Your task to perform on an android device: check android version Image 0: 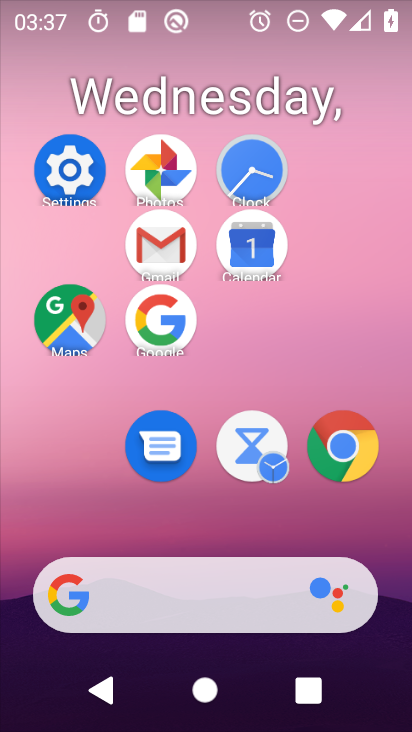
Step 0: click (80, 167)
Your task to perform on an android device: check android version Image 1: 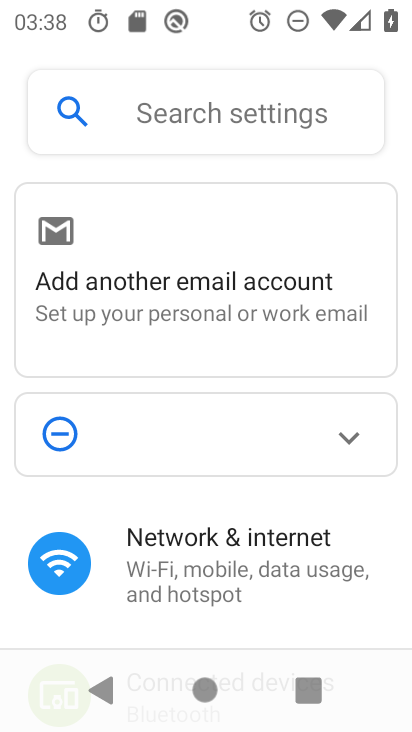
Step 1: press home button
Your task to perform on an android device: check android version Image 2: 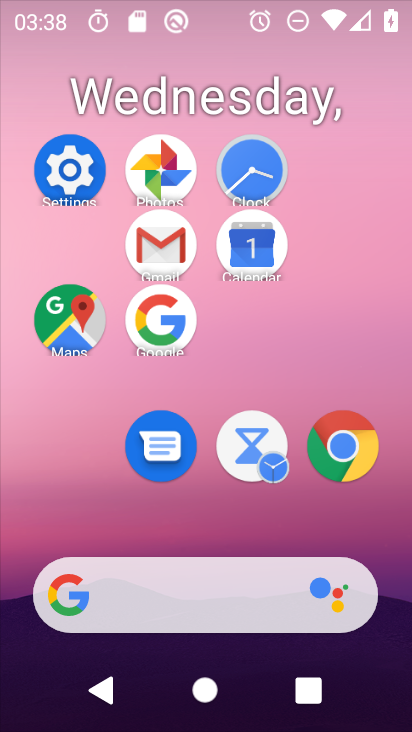
Step 2: click (71, 159)
Your task to perform on an android device: check android version Image 3: 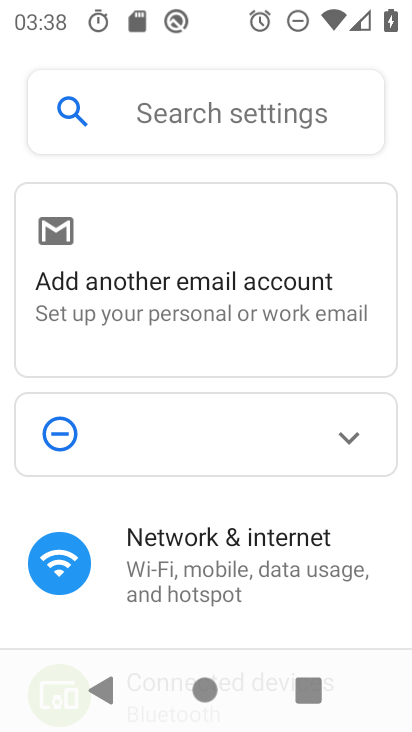
Step 3: drag from (263, 580) to (266, 162)
Your task to perform on an android device: check android version Image 4: 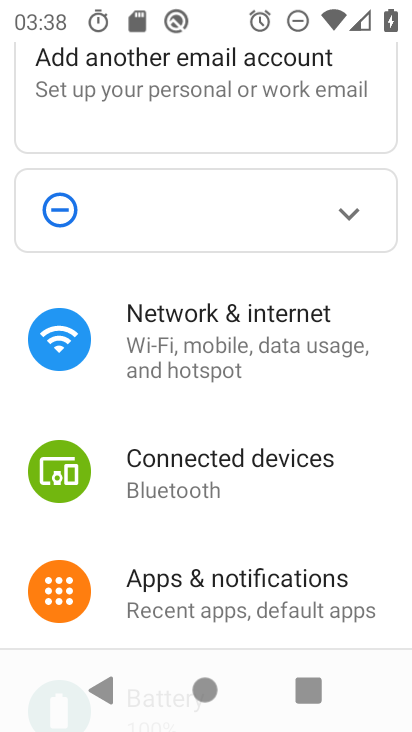
Step 4: drag from (315, 513) to (285, 156)
Your task to perform on an android device: check android version Image 5: 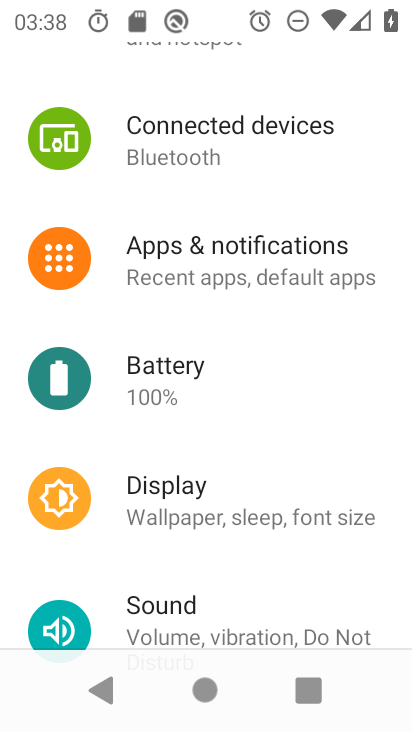
Step 5: drag from (323, 524) to (282, 102)
Your task to perform on an android device: check android version Image 6: 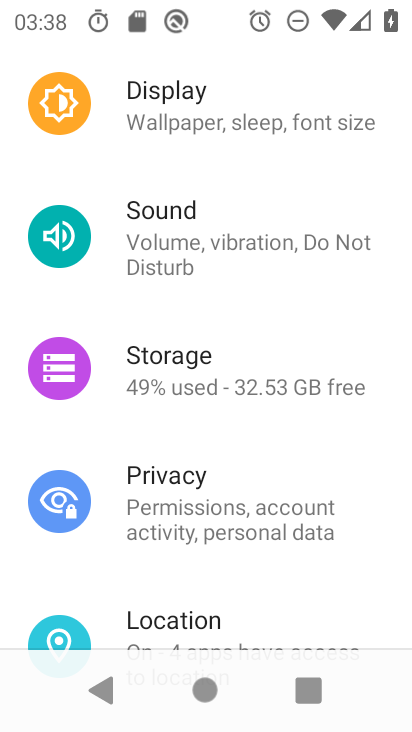
Step 6: drag from (301, 650) to (262, 183)
Your task to perform on an android device: check android version Image 7: 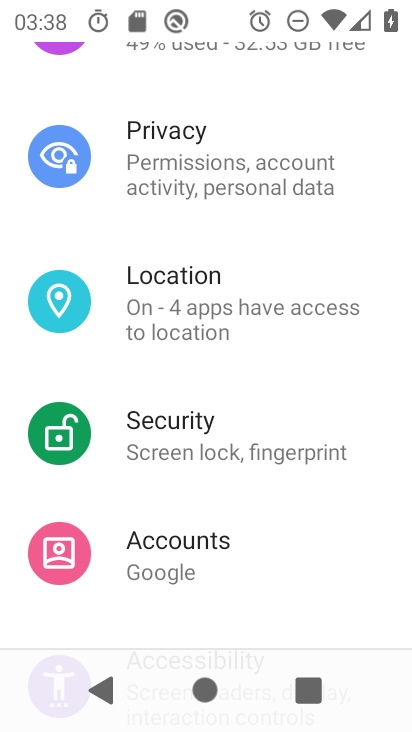
Step 7: drag from (272, 582) to (262, 118)
Your task to perform on an android device: check android version Image 8: 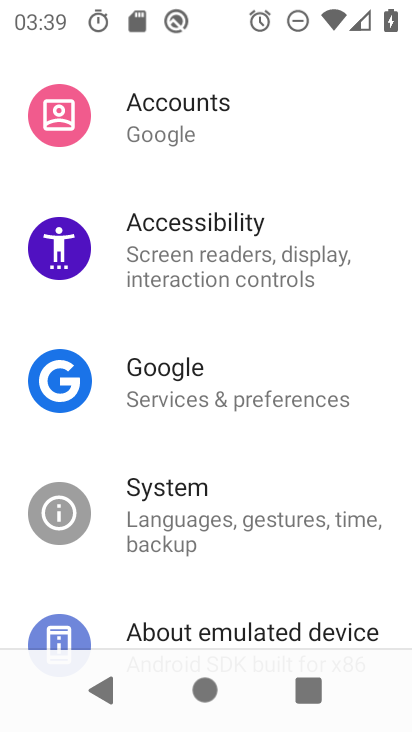
Step 8: drag from (257, 582) to (218, 146)
Your task to perform on an android device: check android version Image 9: 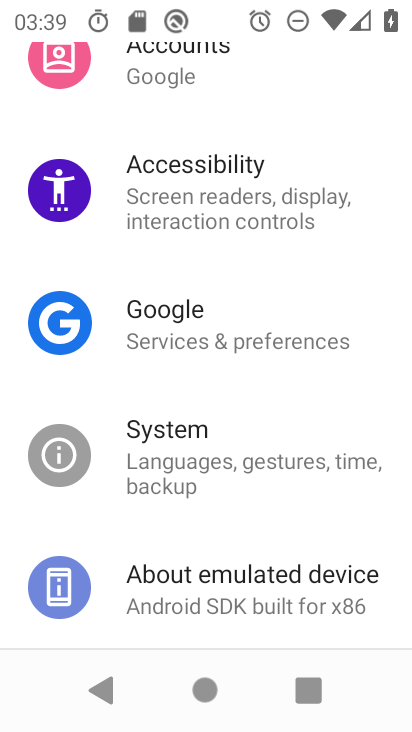
Step 9: click (223, 568)
Your task to perform on an android device: check android version Image 10: 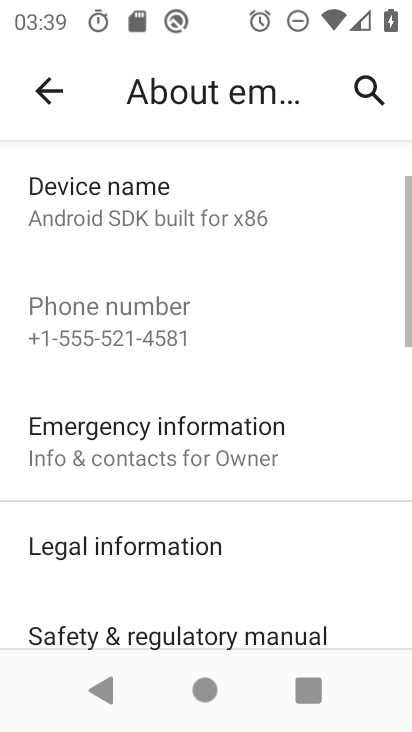
Step 10: drag from (216, 541) to (215, 219)
Your task to perform on an android device: check android version Image 11: 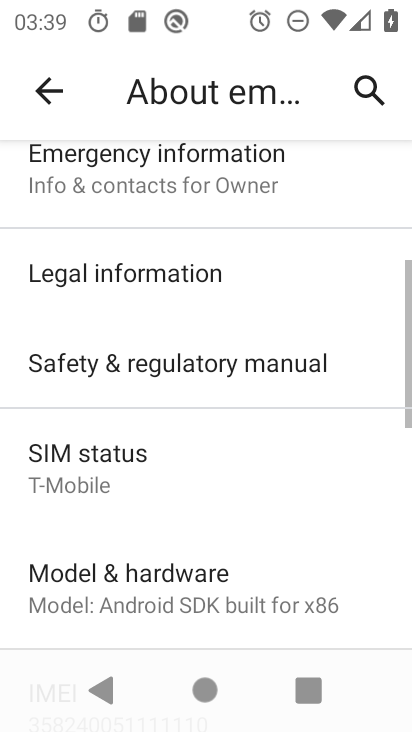
Step 11: drag from (204, 531) to (161, 117)
Your task to perform on an android device: check android version Image 12: 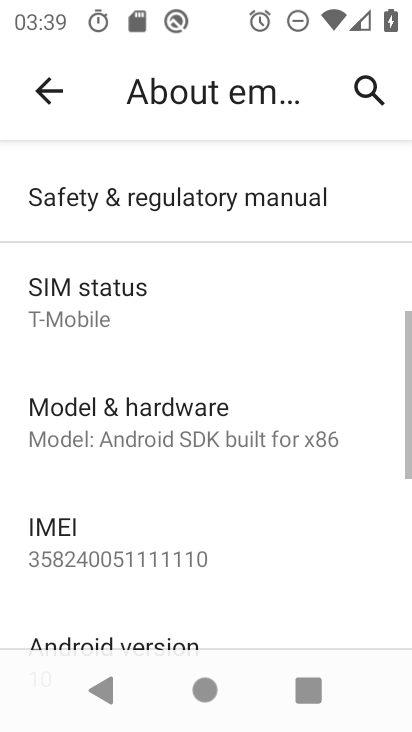
Step 12: drag from (238, 549) to (212, 165)
Your task to perform on an android device: check android version Image 13: 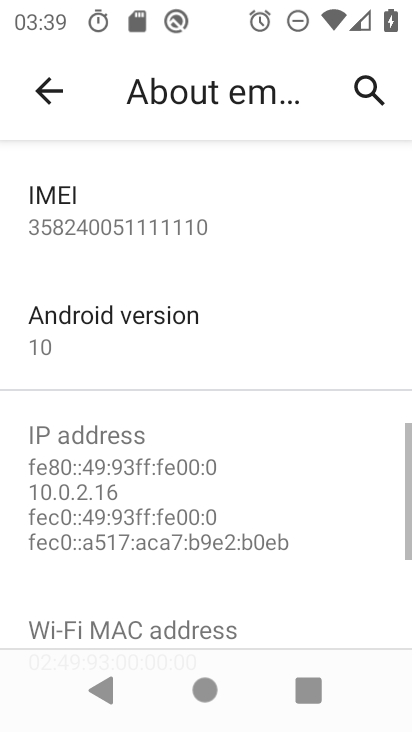
Step 13: click (200, 332)
Your task to perform on an android device: check android version Image 14: 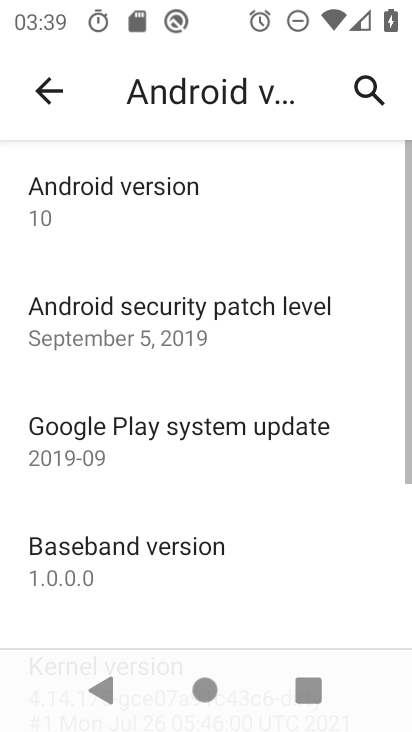
Step 14: task complete